Your task to perform on an android device: read, delete, or share a saved page in the chrome app Image 0: 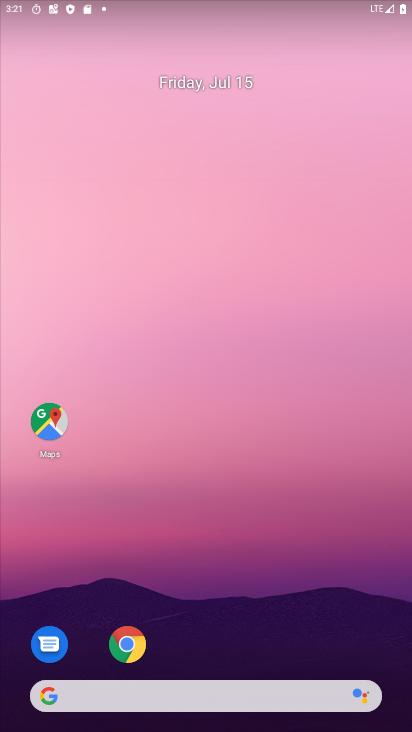
Step 0: click (126, 635)
Your task to perform on an android device: read, delete, or share a saved page in the chrome app Image 1: 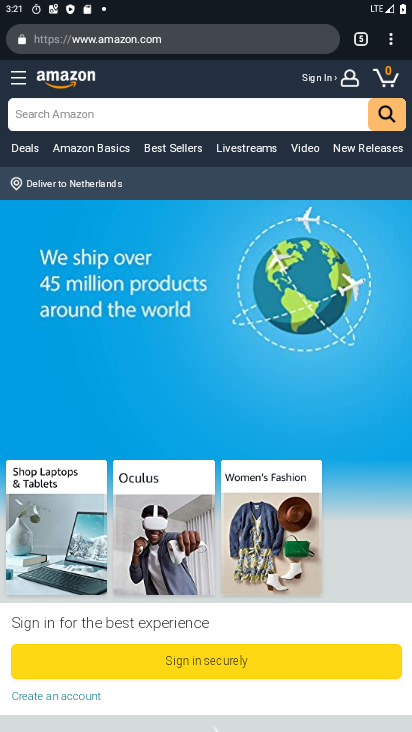
Step 1: drag from (386, 48) to (267, 246)
Your task to perform on an android device: read, delete, or share a saved page in the chrome app Image 2: 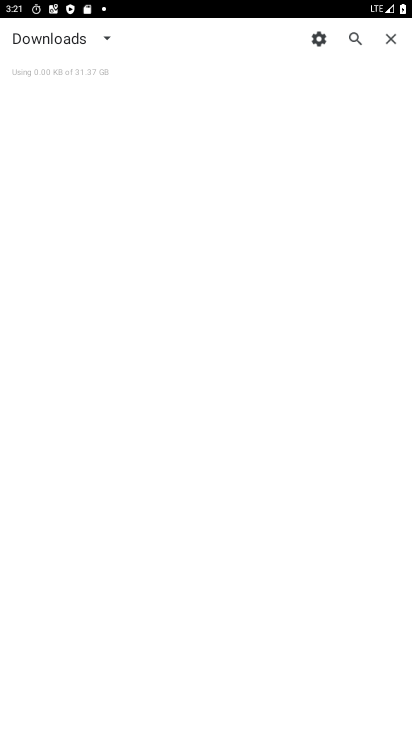
Step 2: click (108, 37)
Your task to perform on an android device: read, delete, or share a saved page in the chrome app Image 3: 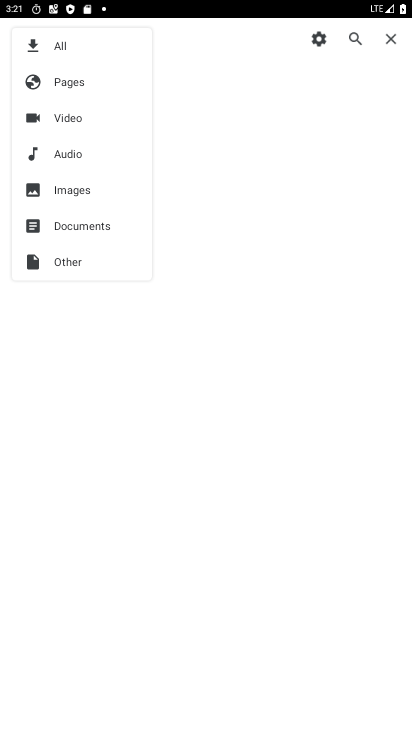
Step 3: click (79, 73)
Your task to perform on an android device: read, delete, or share a saved page in the chrome app Image 4: 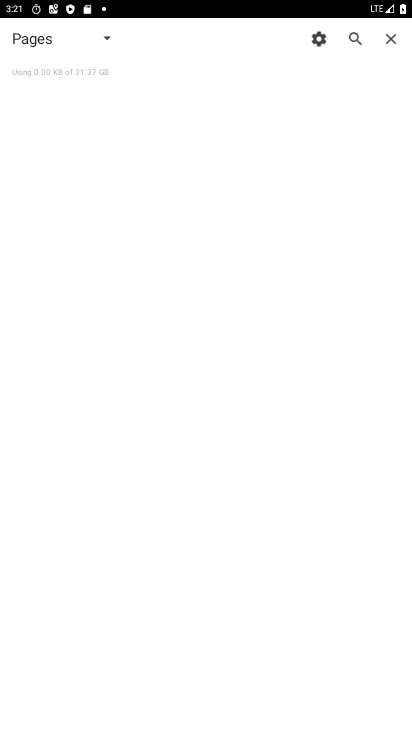
Step 4: task complete